Your task to perform on an android device: turn on the 24-hour format for clock Image 0: 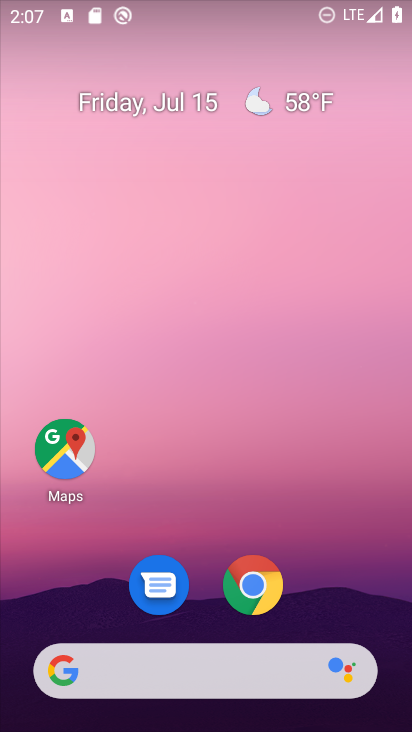
Step 0: drag from (357, 546) to (371, 39)
Your task to perform on an android device: turn on the 24-hour format for clock Image 1: 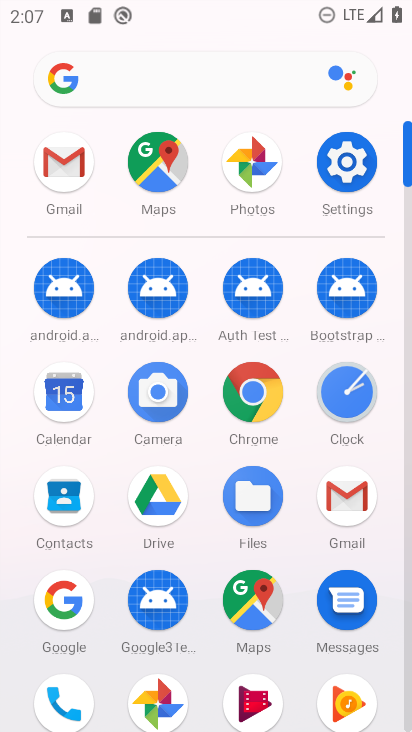
Step 1: click (352, 383)
Your task to perform on an android device: turn on the 24-hour format for clock Image 2: 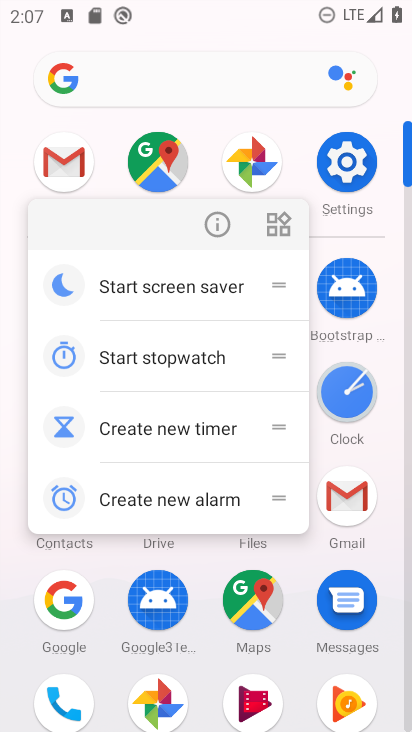
Step 2: click (352, 383)
Your task to perform on an android device: turn on the 24-hour format for clock Image 3: 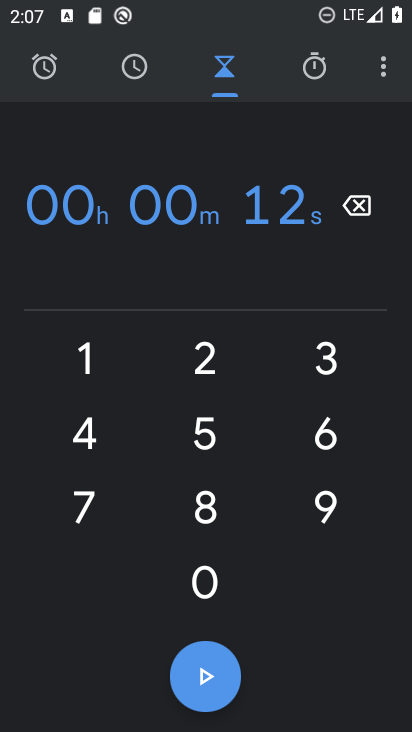
Step 3: click (142, 72)
Your task to perform on an android device: turn on the 24-hour format for clock Image 4: 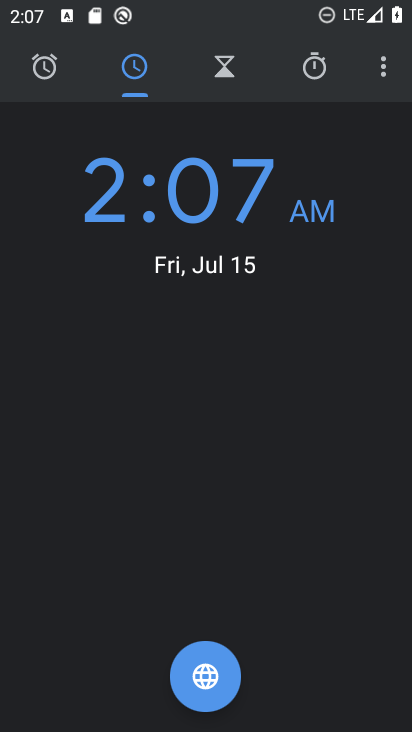
Step 4: click (380, 70)
Your task to perform on an android device: turn on the 24-hour format for clock Image 5: 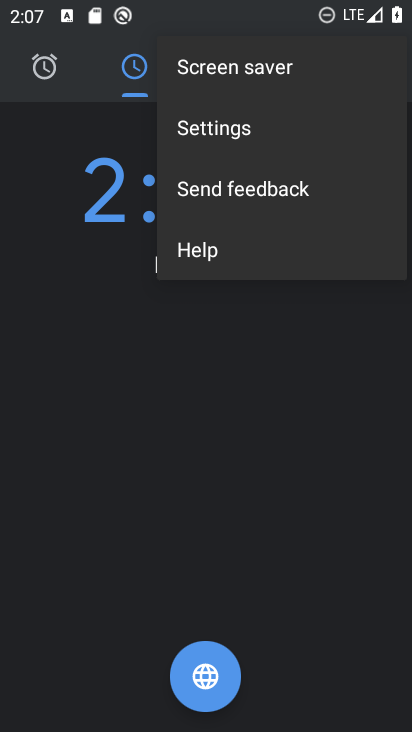
Step 5: click (245, 134)
Your task to perform on an android device: turn on the 24-hour format for clock Image 6: 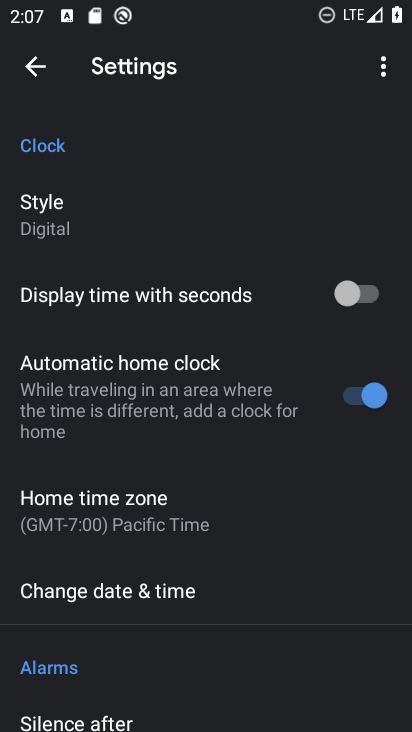
Step 6: click (224, 600)
Your task to perform on an android device: turn on the 24-hour format for clock Image 7: 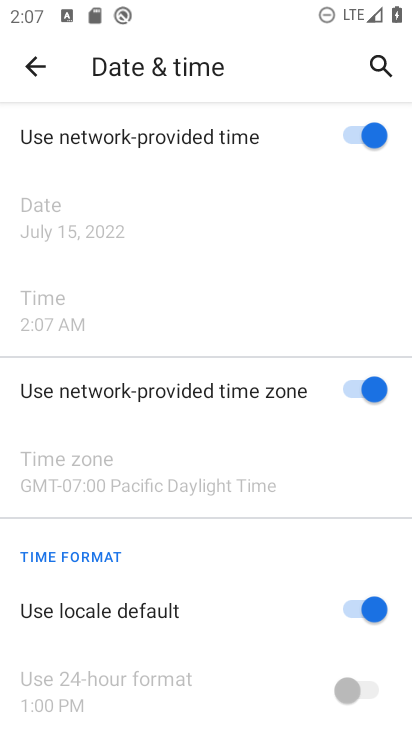
Step 7: click (356, 601)
Your task to perform on an android device: turn on the 24-hour format for clock Image 8: 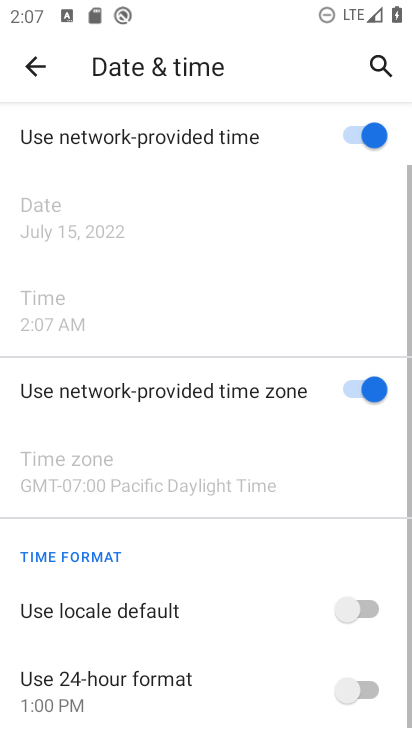
Step 8: click (366, 680)
Your task to perform on an android device: turn on the 24-hour format for clock Image 9: 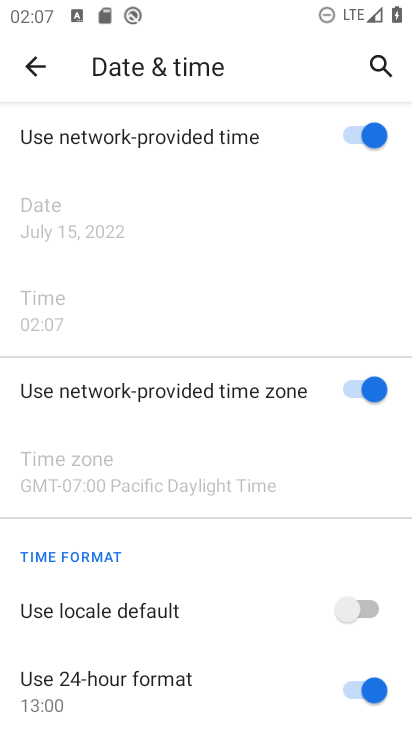
Step 9: task complete